Your task to perform on an android device: Open Chrome and go to the settings page Image 0: 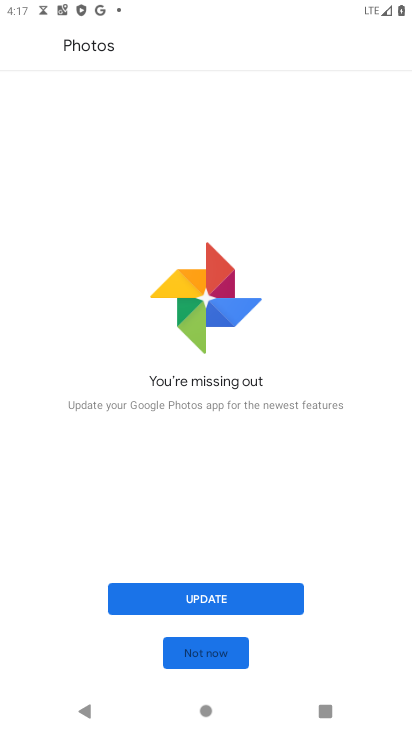
Step 0: press home button
Your task to perform on an android device: Open Chrome and go to the settings page Image 1: 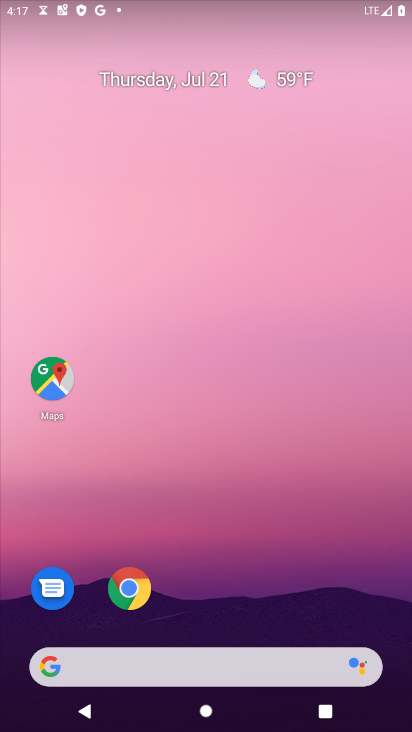
Step 1: click (130, 589)
Your task to perform on an android device: Open Chrome and go to the settings page Image 2: 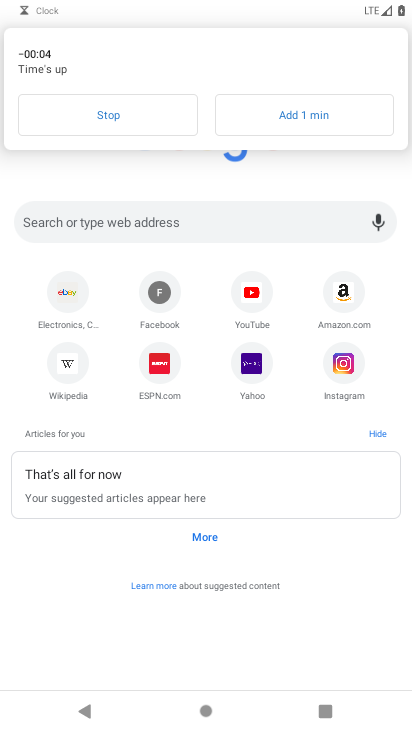
Step 2: click (151, 106)
Your task to perform on an android device: Open Chrome and go to the settings page Image 3: 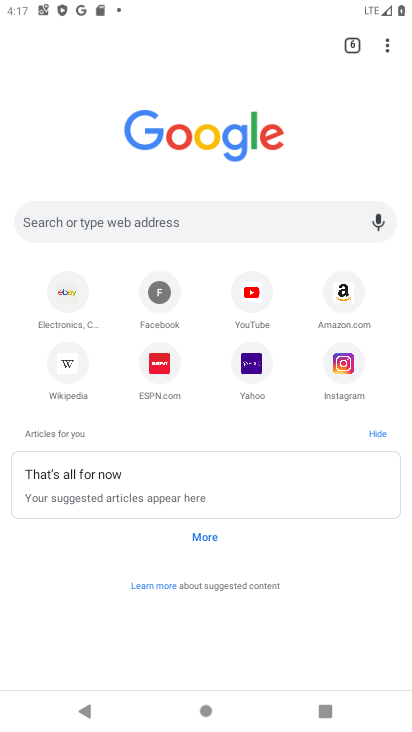
Step 3: click (384, 43)
Your task to perform on an android device: Open Chrome and go to the settings page Image 4: 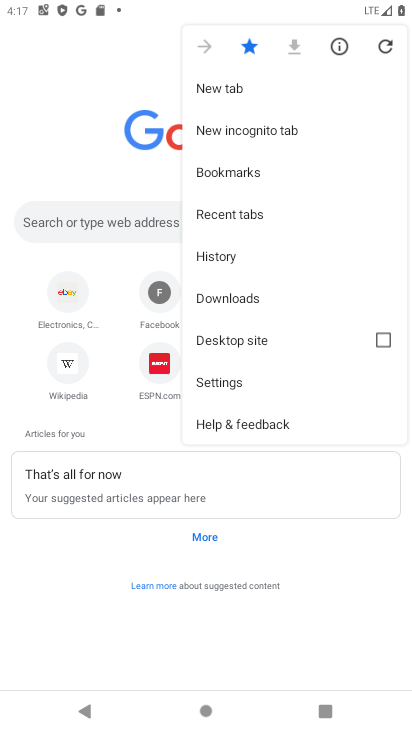
Step 4: click (227, 381)
Your task to perform on an android device: Open Chrome and go to the settings page Image 5: 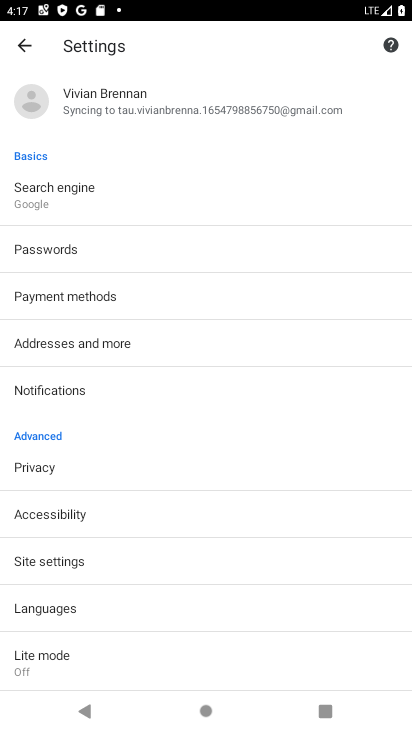
Step 5: task complete